Your task to perform on an android device: open a new tab in the chrome app Image 0: 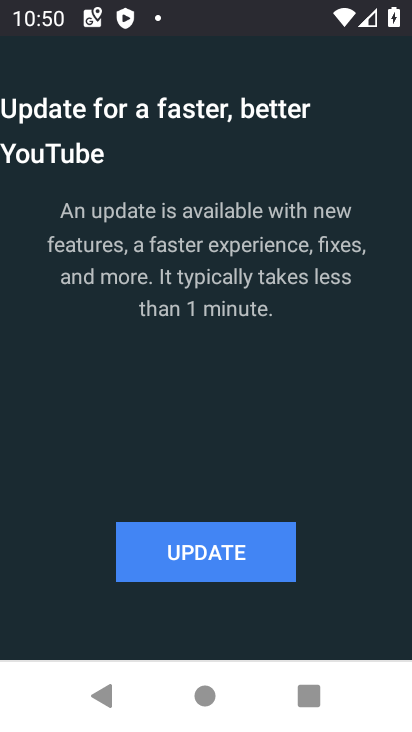
Step 0: press home button
Your task to perform on an android device: open a new tab in the chrome app Image 1: 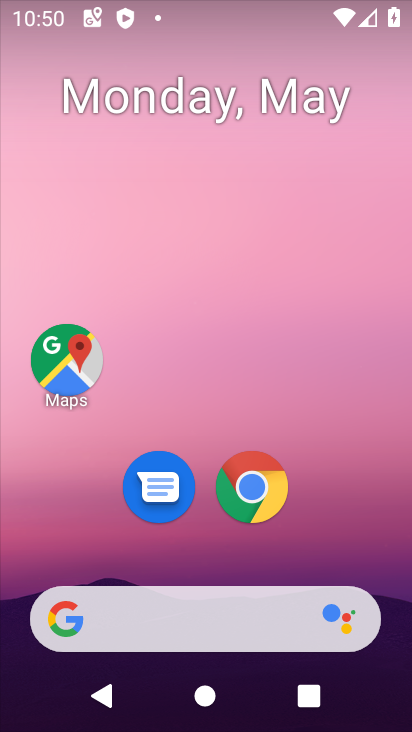
Step 1: drag from (358, 537) to (370, 218)
Your task to perform on an android device: open a new tab in the chrome app Image 2: 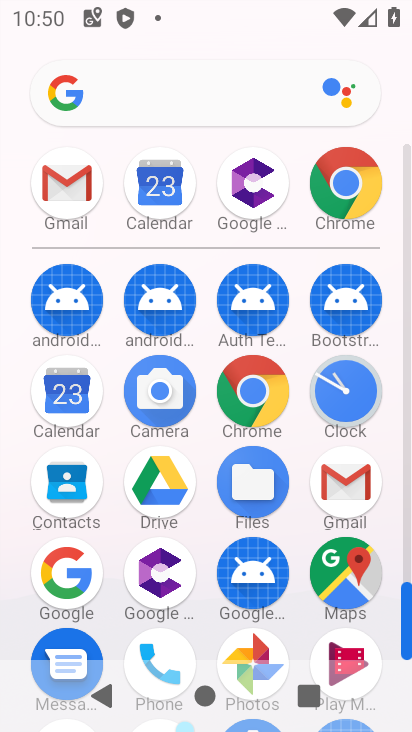
Step 2: click (279, 423)
Your task to perform on an android device: open a new tab in the chrome app Image 3: 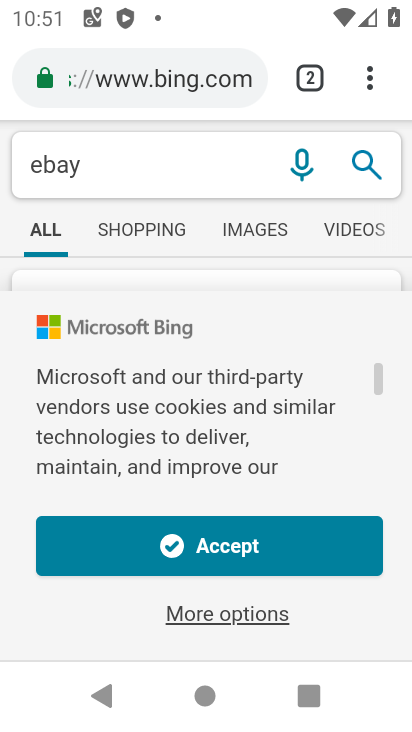
Step 3: click (372, 93)
Your task to perform on an android device: open a new tab in the chrome app Image 4: 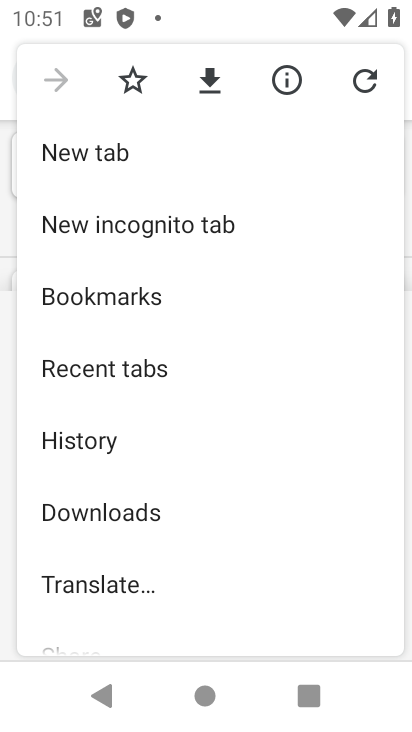
Step 4: click (143, 170)
Your task to perform on an android device: open a new tab in the chrome app Image 5: 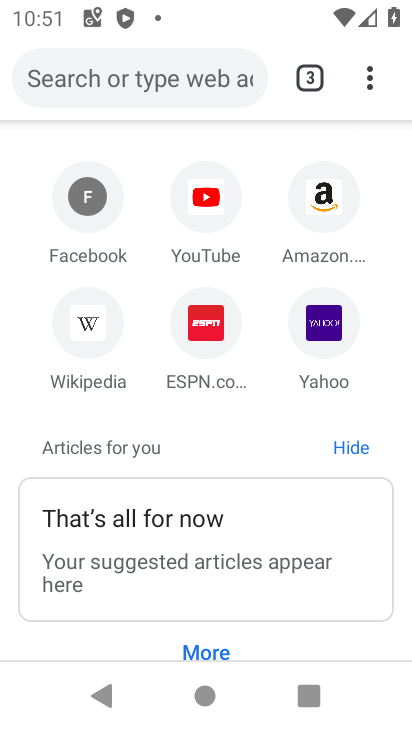
Step 5: task complete